Your task to perform on an android device: change notification settings in the gmail app Image 0: 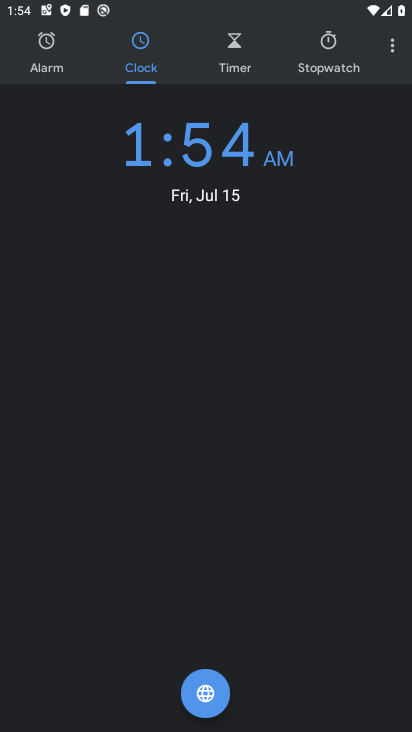
Step 0: press home button
Your task to perform on an android device: change notification settings in the gmail app Image 1: 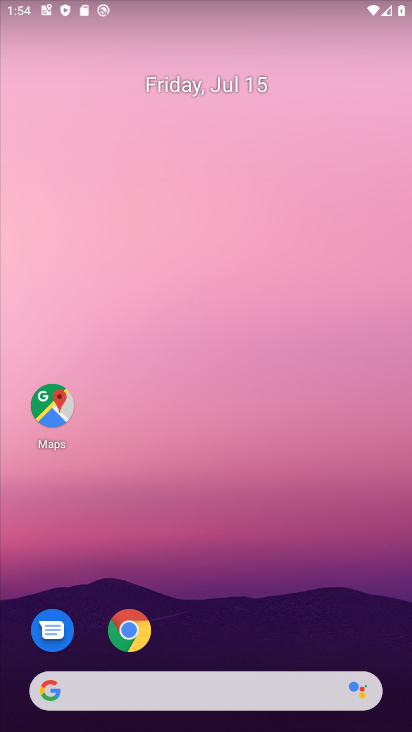
Step 1: drag from (249, 580) to (186, 143)
Your task to perform on an android device: change notification settings in the gmail app Image 2: 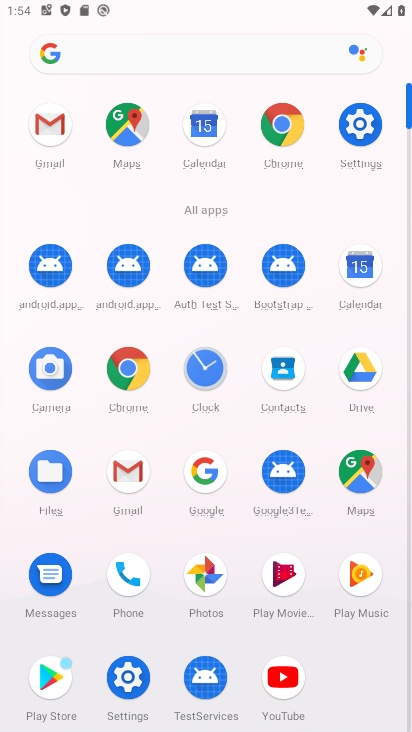
Step 2: click (48, 124)
Your task to perform on an android device: change notification settings in the gmail app Image 3: 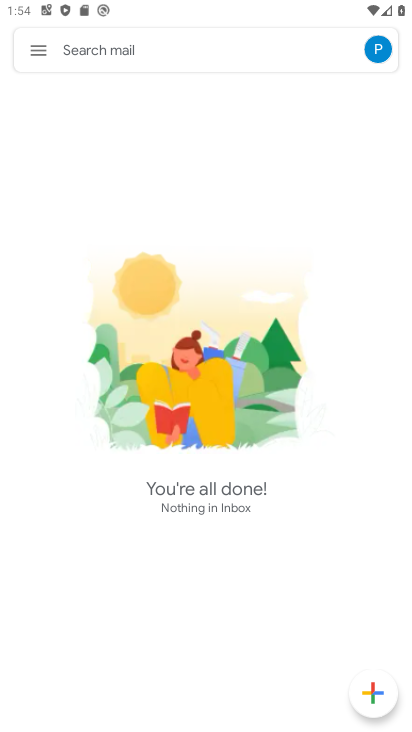
Step 3: click (42, 50)
Your task to perform on an android device: change notification settings in the gmail app Image 4: 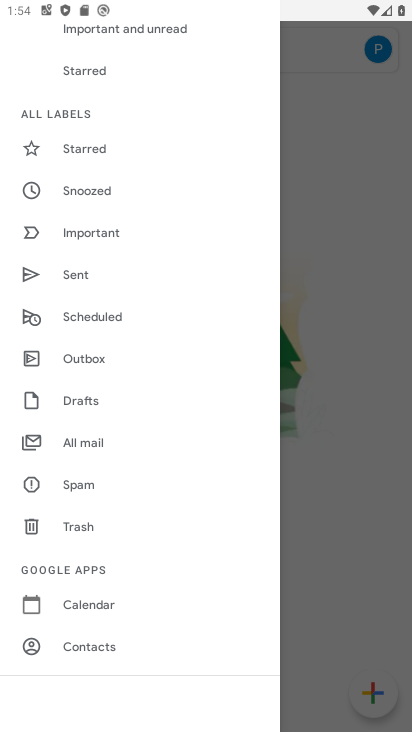
Step 4: drag from (128, 601) to (152, 247)
Your task to perform on an android device: change notification settings in the gmail app Image 5: 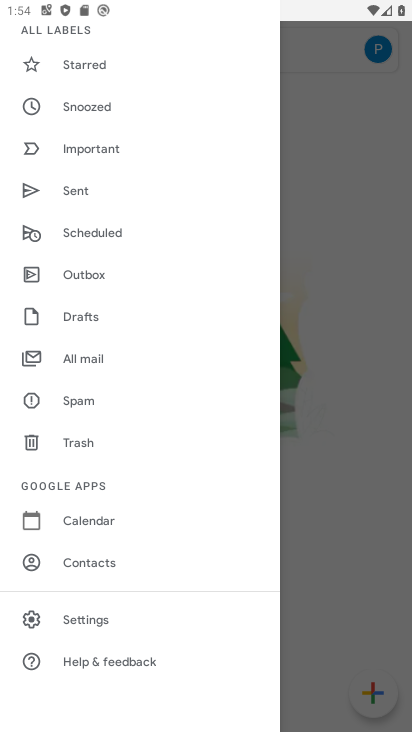
Step 5: click (71, 617)
Your task to perform on an android device: change notification settings in the gmail app Image 6: 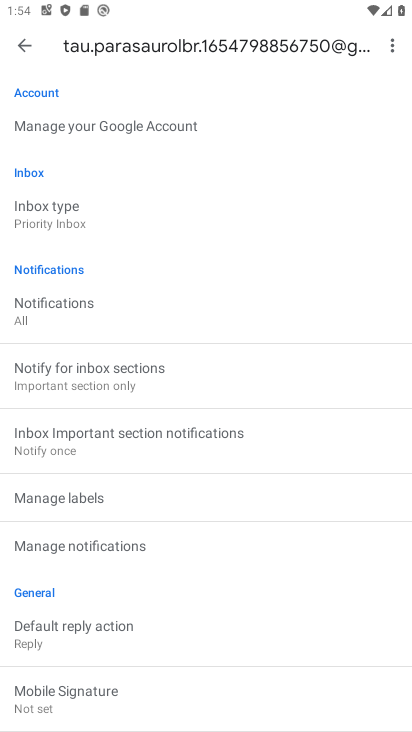
Step 6: click (100, 547)
Your task to perform on an android device: change notification settings in the gmail app Image 7: 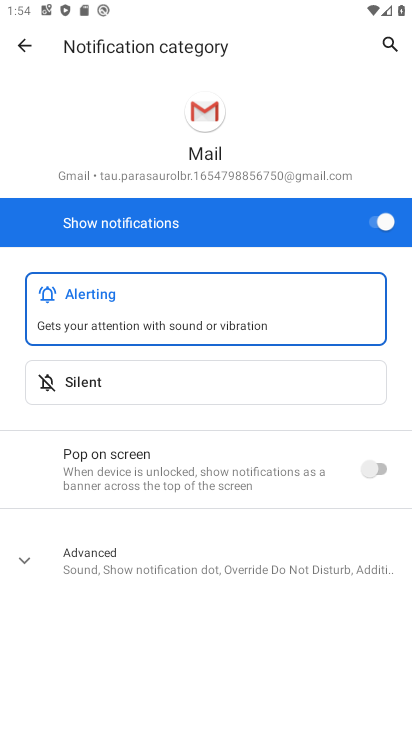
Step 7: click (391, 213)
Your task to perform on an android device: change notification settings in the gmail app Image 8: 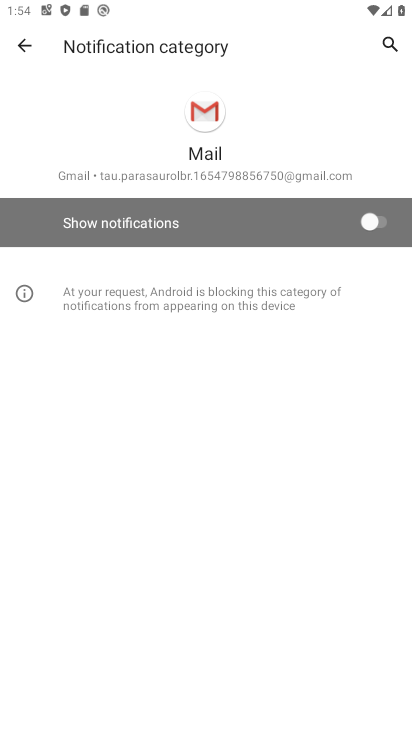
Step 8: task complete